Your task to perform on an android device: Open eBay Image 0: 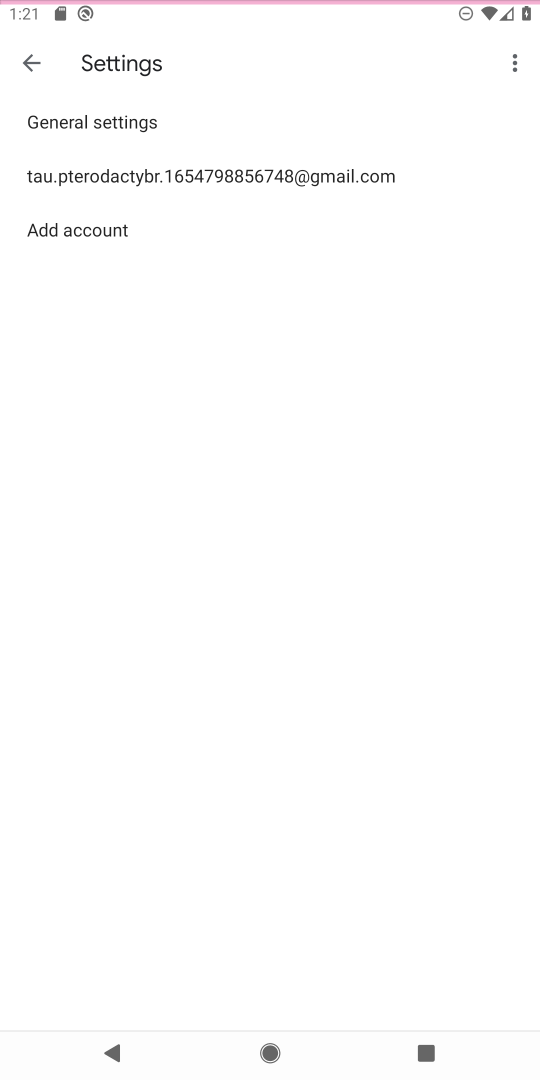
Step 0: press home button
Your task to perform on an android device: Open eBay Image 1: 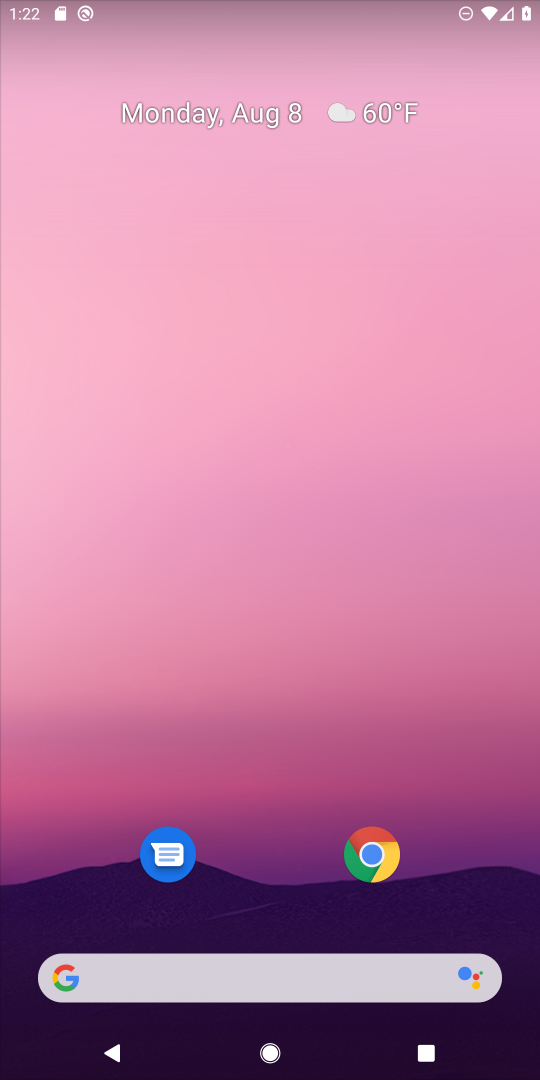
Step 1: click (65, 980)
Your task to perform on an android device: Open eBay Image 2: 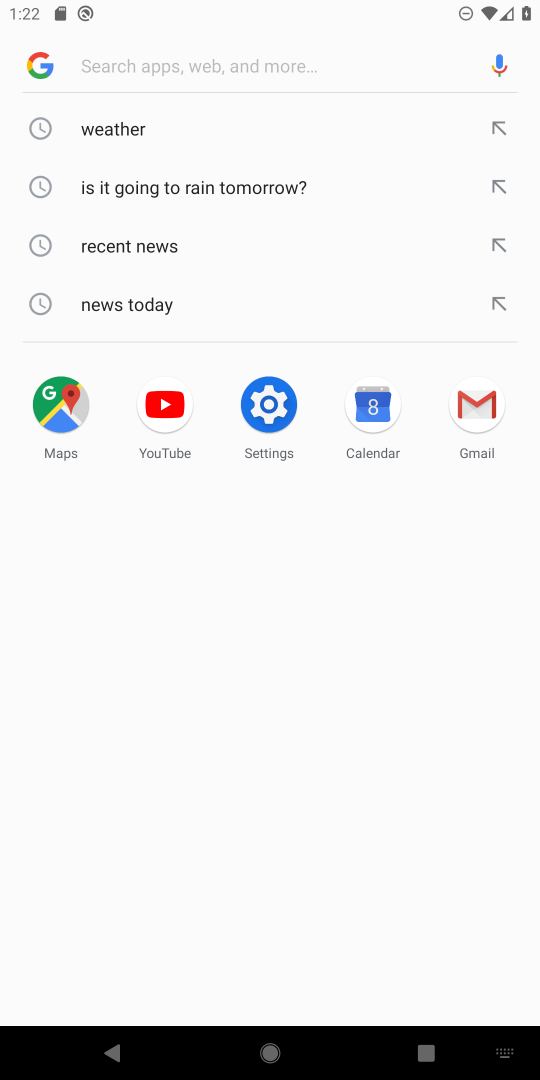
Step 2: type "eBay"
Your task to perform on an android device: Open eBay Image 3: 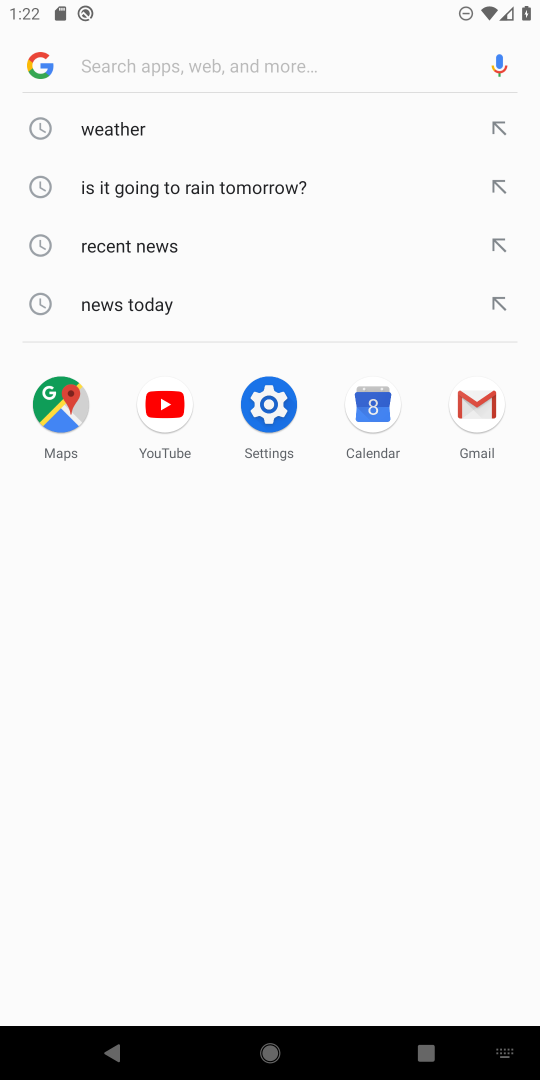
Step 3: click (134, 53)
Your task to perform on an android device: Open eBay Image 4: 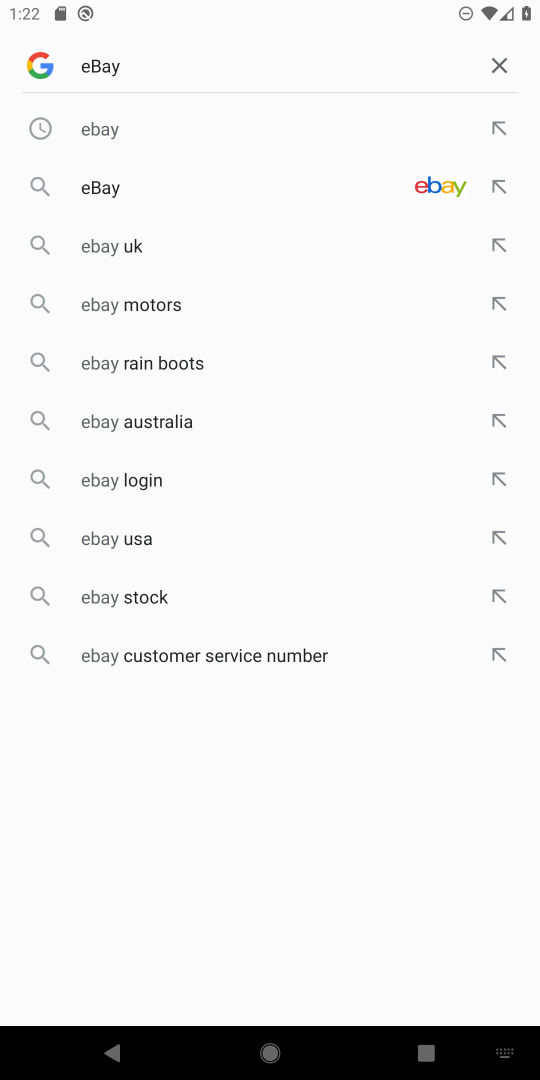
Step 4: click (430, 185)
Your task to perform on an android device: Open eBay Image 5: 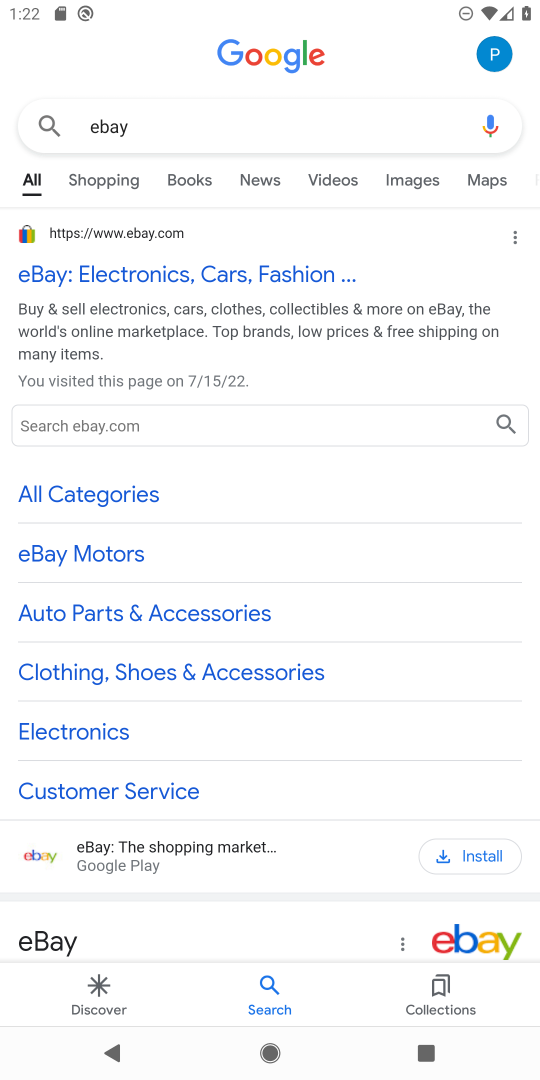
Step 5: click (146, 235)
Your task to perform on an android device: Open eBay Image 6: 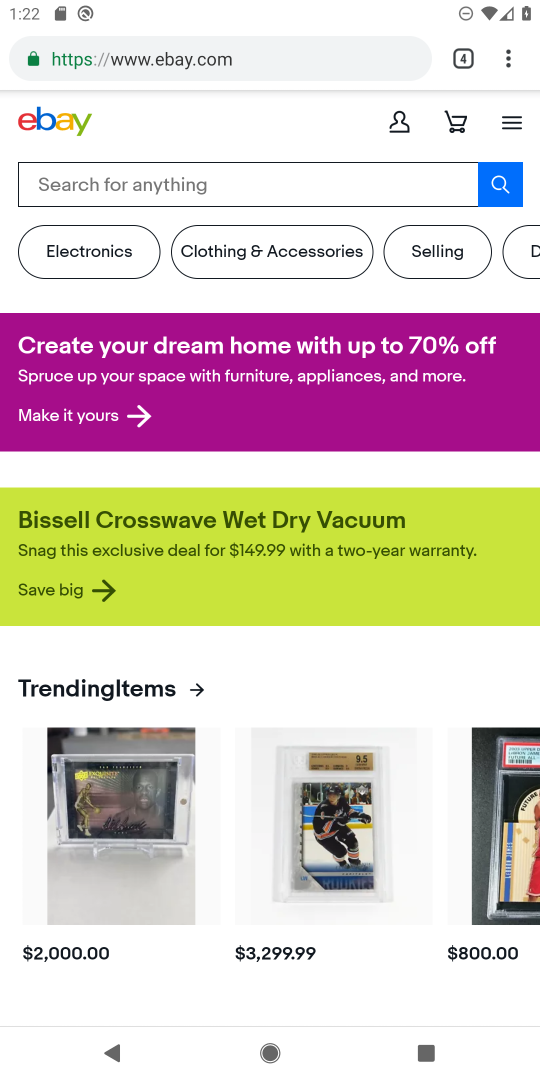
Step 6: task complete